Your task to perform on an android device: show emergency info Image 0: 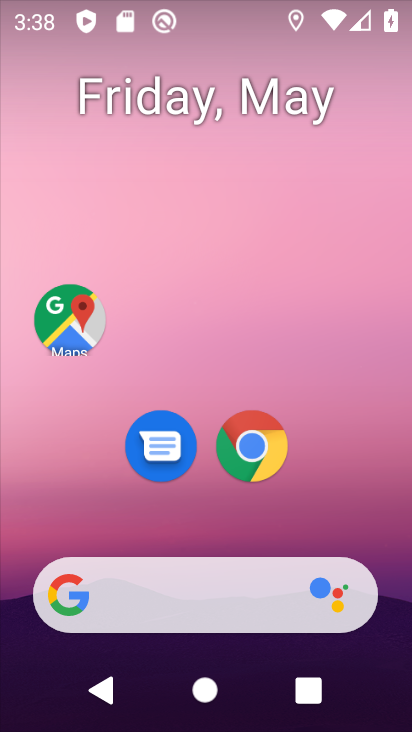
Step 0: drag from (381, 349) to (39, 371)
Your task to perform on an android device: show emergency info Image 1: 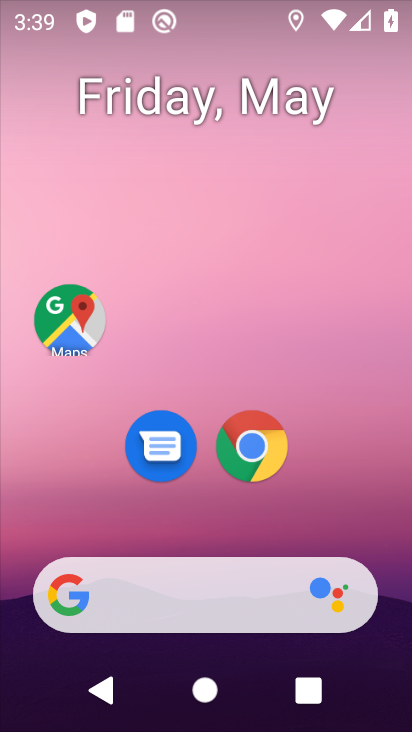
Step 1: drag from (331, 483) to (386, 38)
Your task to perform on an android device: show emergency info Image 2: 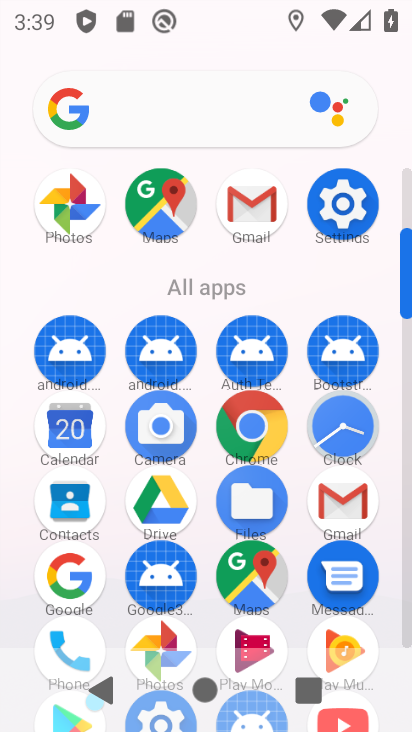
Step 2: click (350, 208)
Your task to perform on an android device: show emergency info Image 3: 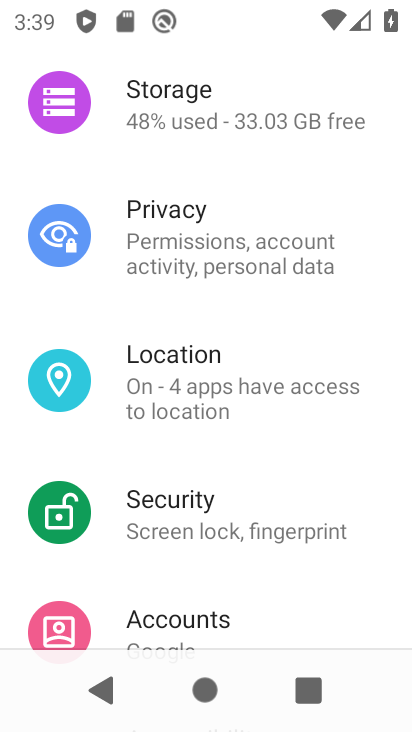
Step 3: drag from (256, 606) to (246, 131)
Your task to perform on an android device: show emergency info Image 4: 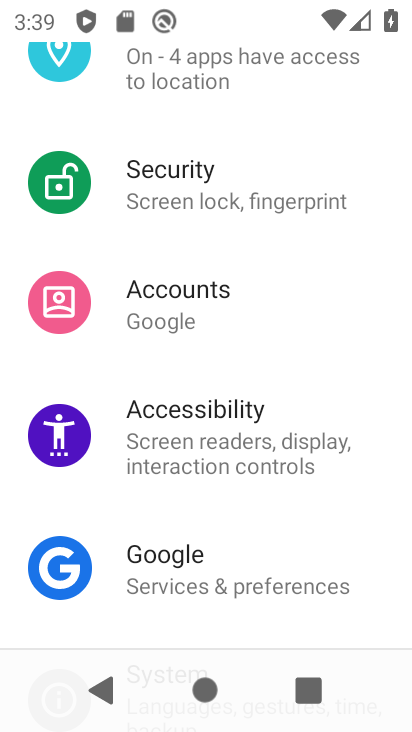
Step 4: drag from (278, 587) to (358, 131)
Your task to perform on an android device: show emergency info Image 5: 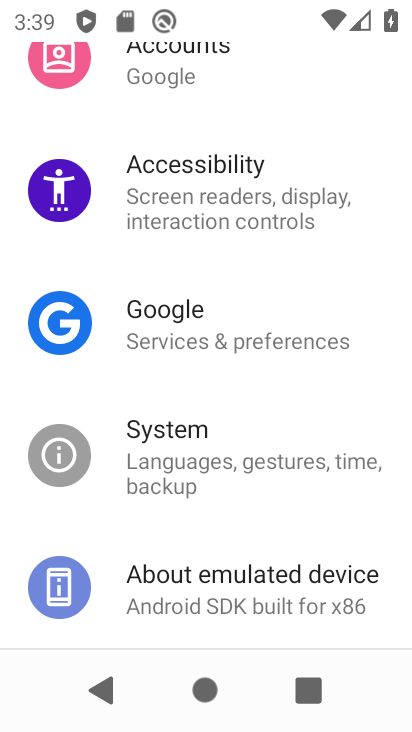
Step 5: drag from (279, 569) to (330, 210)
Your task to perform on an android device: show emergency info Image 6: 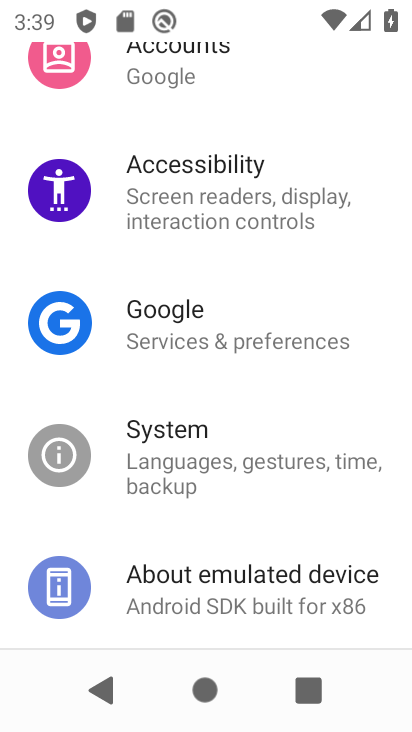
Step 6: click (275, 577)
Your task to perform on an android device: show emergency info Image 7: 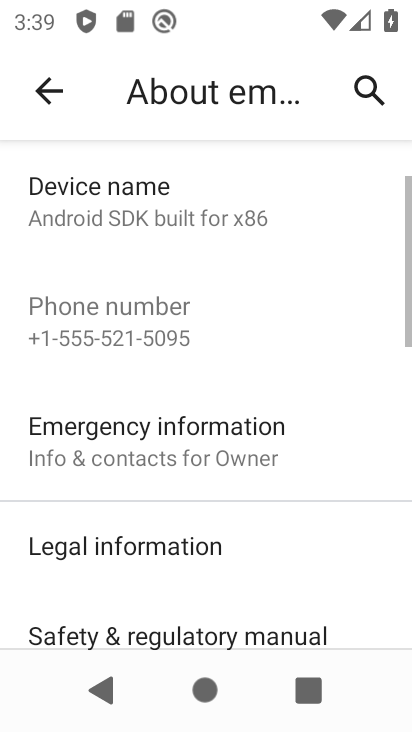
Step 7: click (188, 451)
Your task to perform on an android device: show emergency info Image 8: 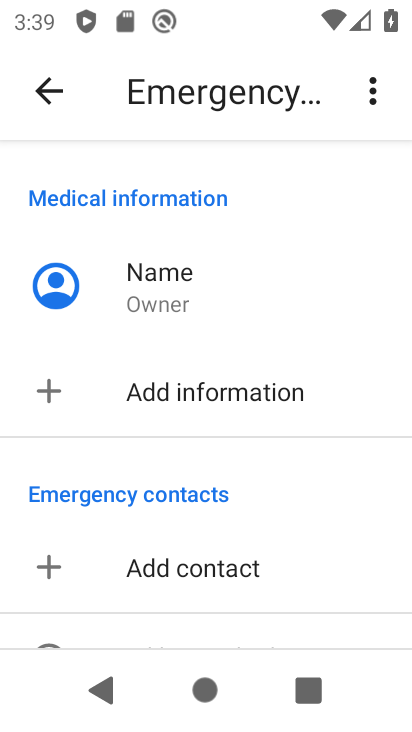
Step 8: task complete